Your task to perform on an android device: empty trash in the gmail app Image 0: 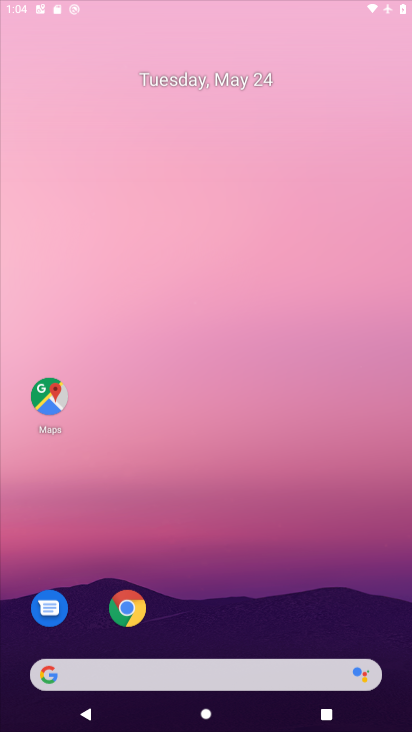
Step 0: drag from (259, 593) to (182, 173)
Your task to perform on an android device: empty trash in the gmail app Image 1: 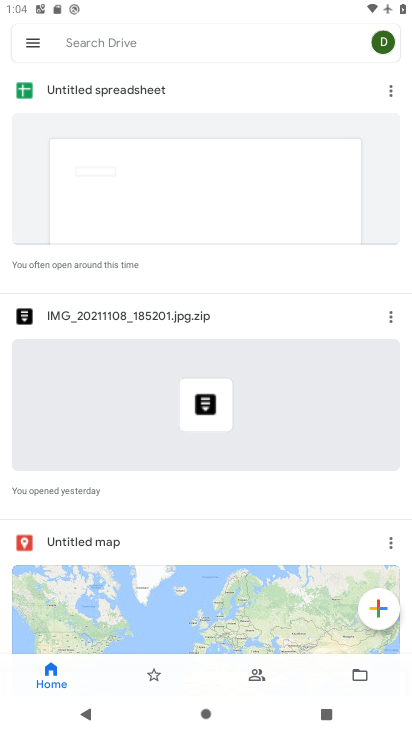
Step 1: press home button
Your task to perform on an android device: empty trash in the gmail app Image 2: 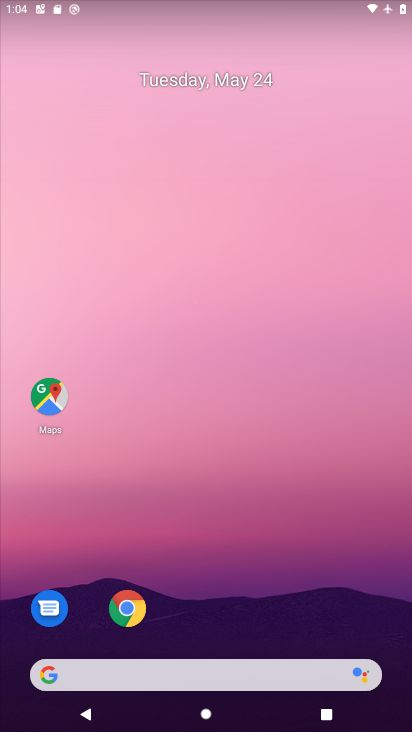
Step 2: drag from (270, 588) to (284, 42)
Your task to perform on an android device: empty trash in the gmail app Image 3: 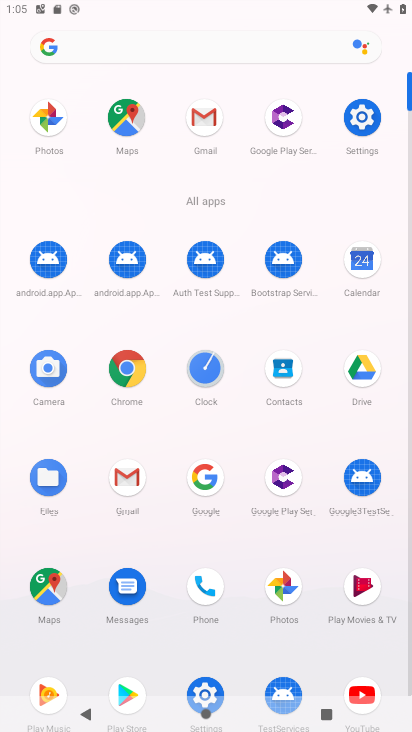
Step 3: click (210, 141)
Your task to perform on an android device: empty trash in the gmail app Image 4: 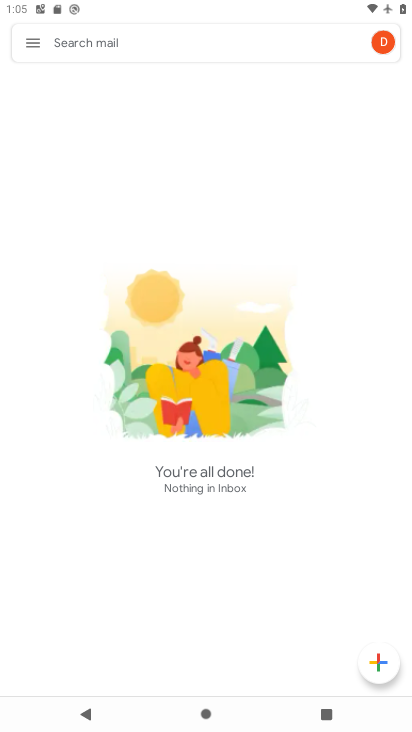
Step 4: click (34, 51)
Your task to perform on an android device: empty trash in the gmail app Image 5: 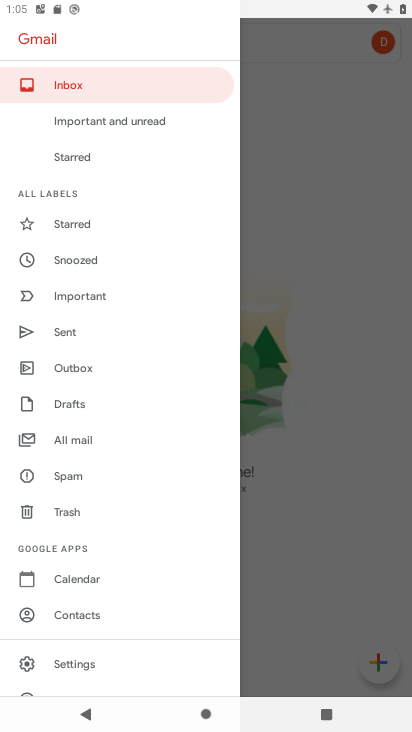
Step 5: click (109, 517)
Your task to perform on an android device: empty trash in the gmail app Image 6: 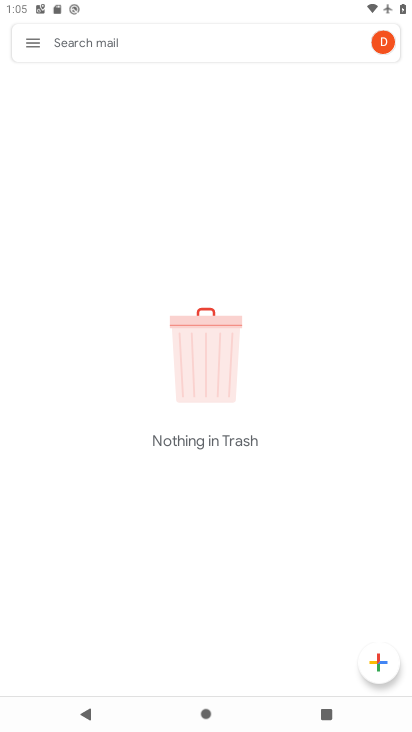
Step 6: task complete